Your task to perform on an android device: turn on javascript in the chrome app Image 0: 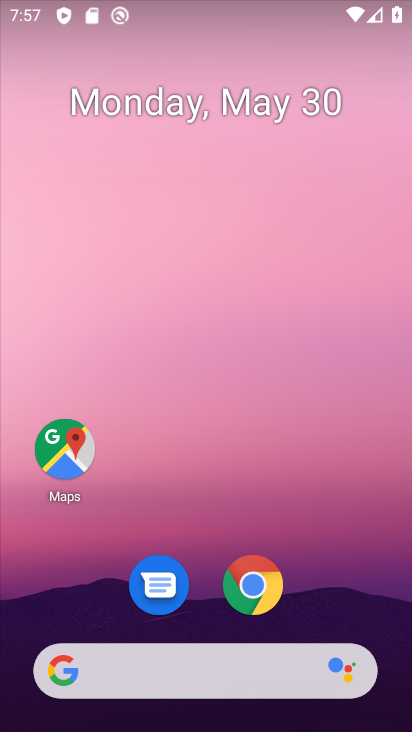
Step 0: task complete